Your task to perform on an android device: Open the calendar and show me this week's events? Image 0: 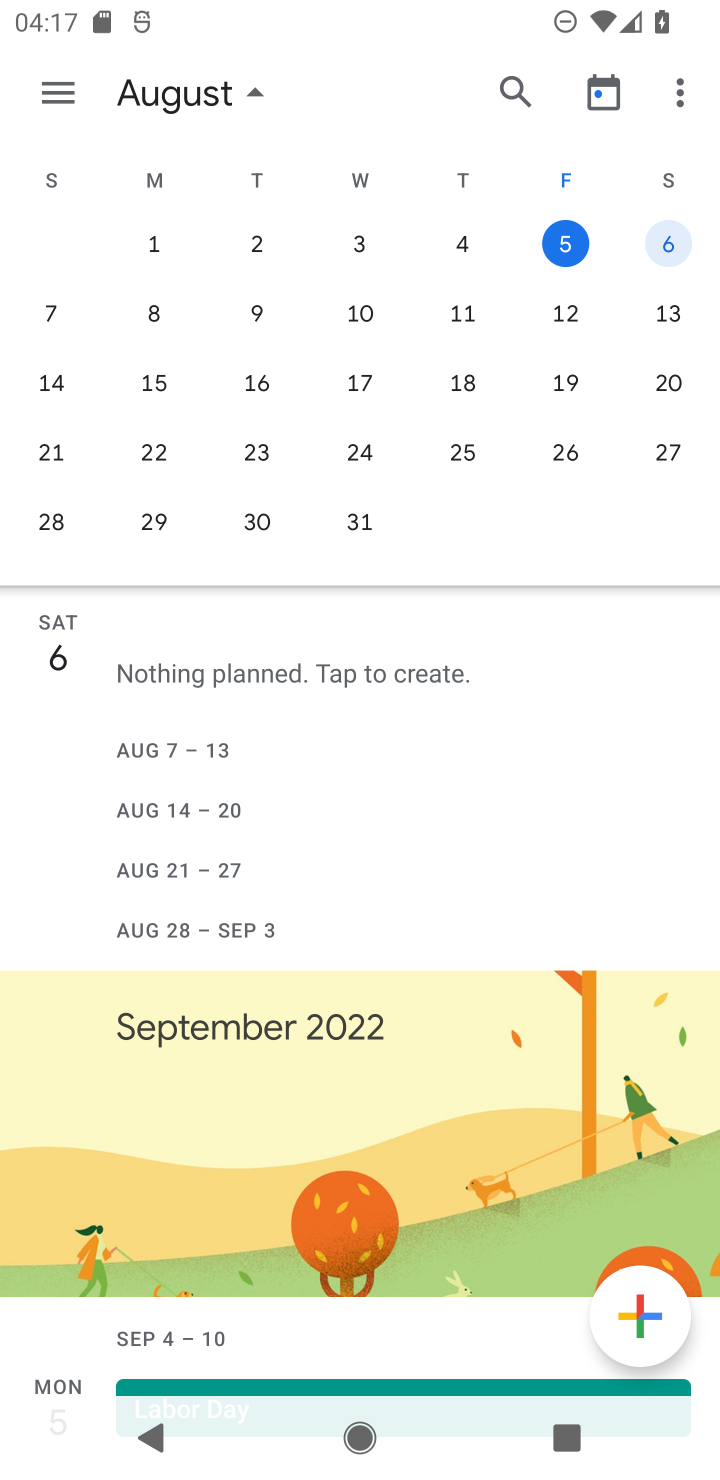
Step 0: click (580, 228)
Your task to perform on an android device: Open the calendar and show me this week's events? Image 1: 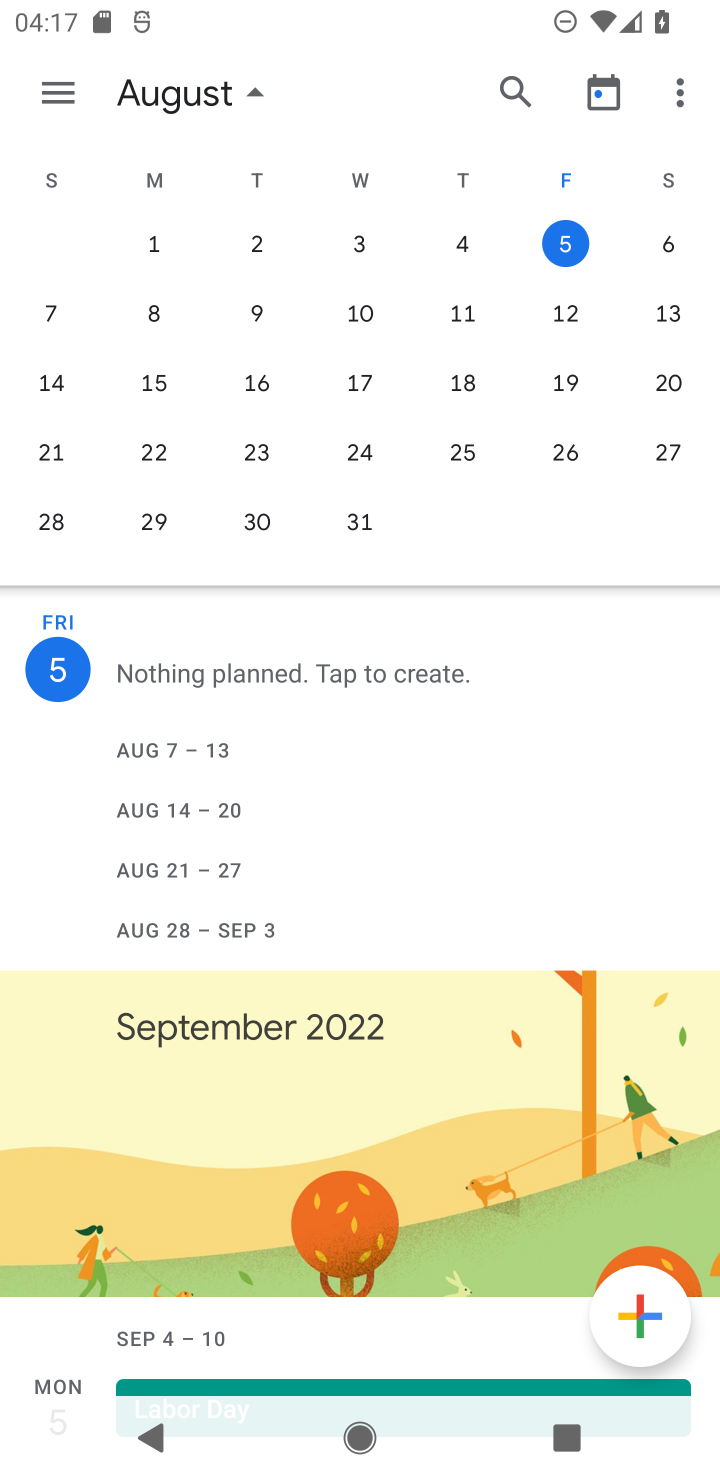
Step 1: click (652, 236)
Your task to perform on an android device: Open the calendar and show me this week's events? Image 2: 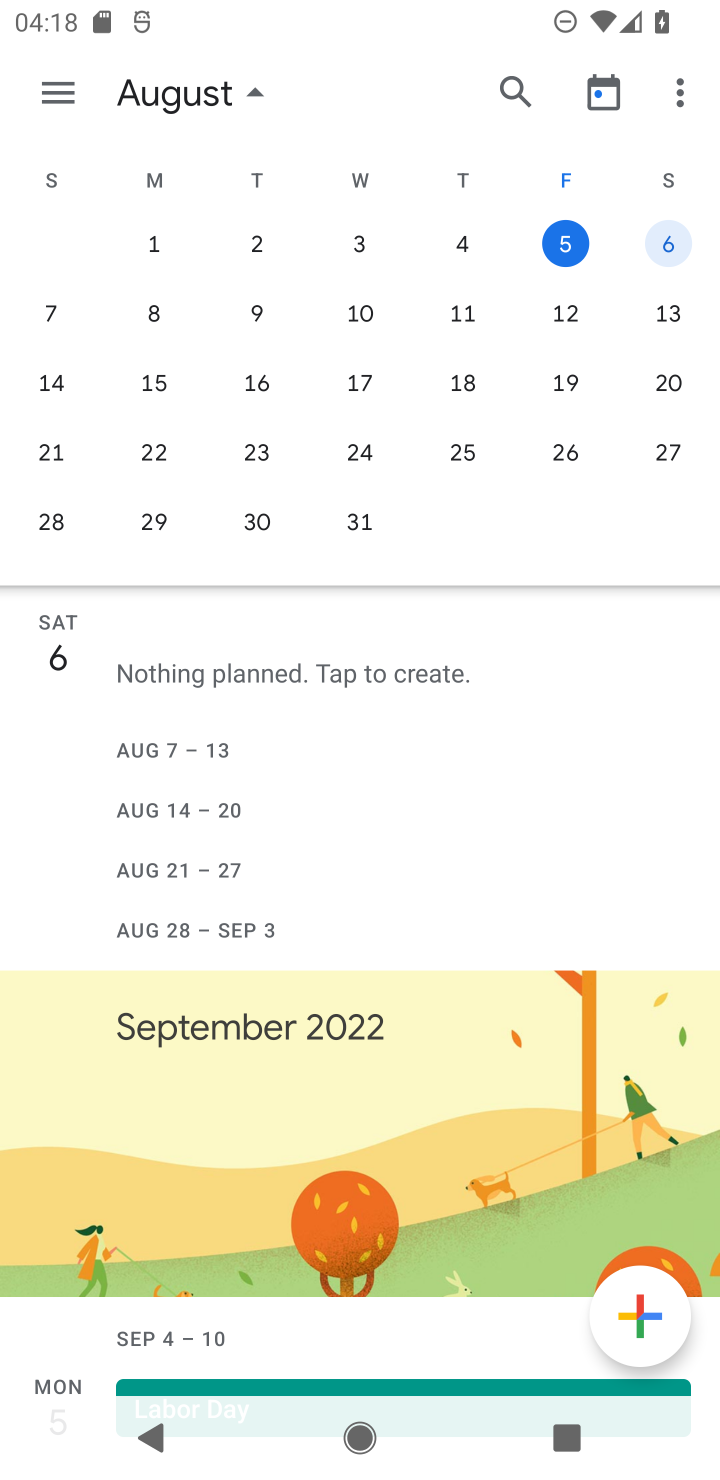
Step 2: task complete